Your task to perform on an android device: find which apps use the phone's location Image 0: 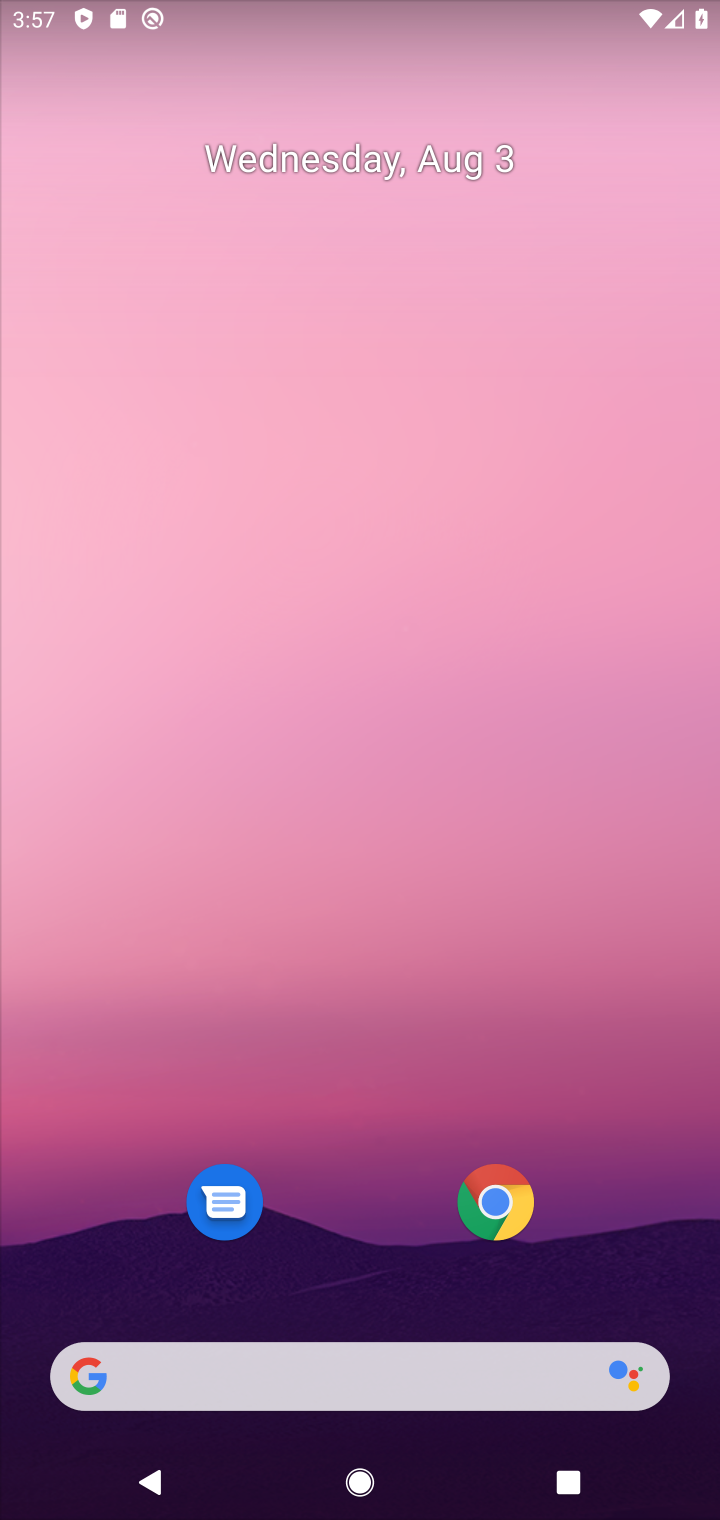
Step 0: drag from (358, 1164) to (492, 178)
Your task to perform on an android device: find which apps use the phone's location Image 1: 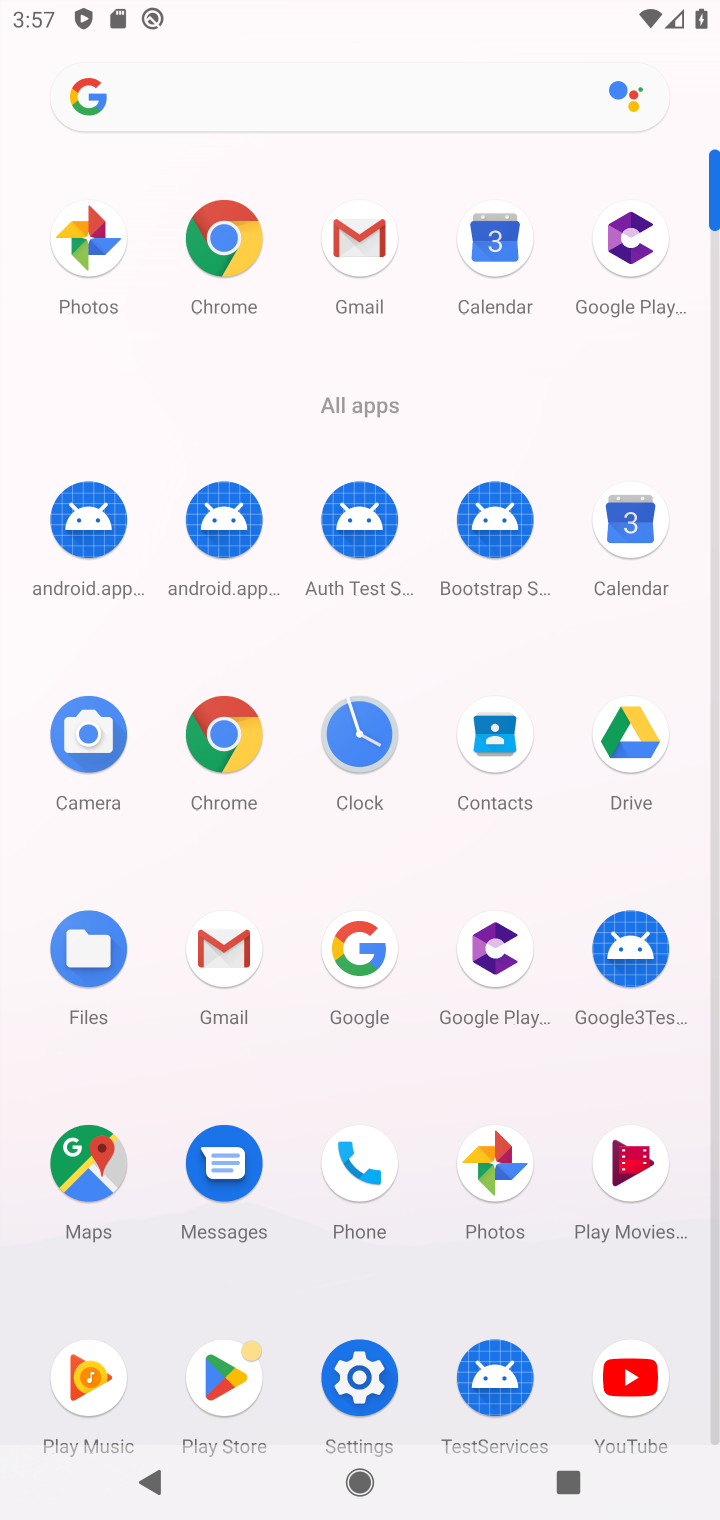
Step 1: click (347, 1368)
Your task to perform on an android device: find which apps use the phone's location Image 2: 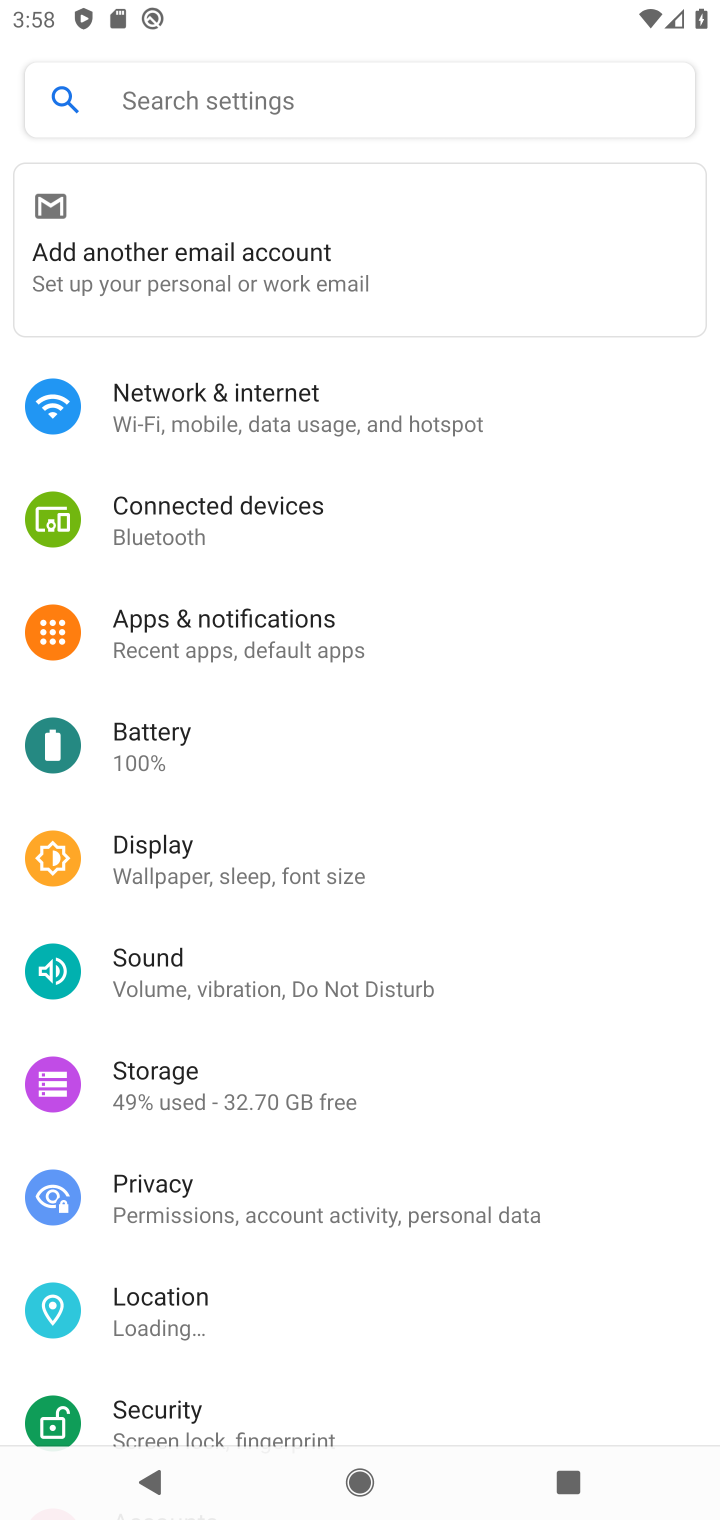
Step 2: click (179, 1302)
Your task to perform on an android device: find which apps use the phone's location Image 3: 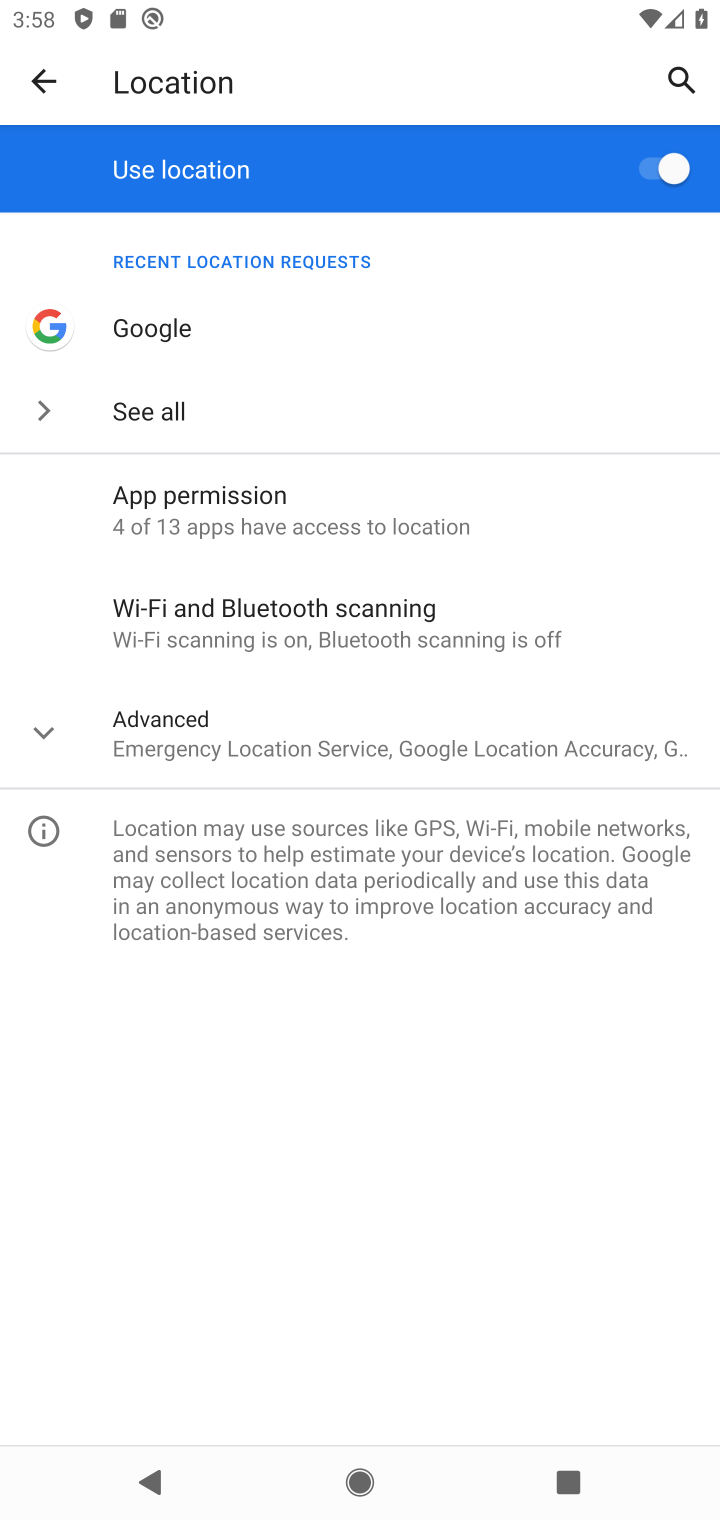
Step 3: click (225, 484)
Your task to perform on an android device: find which apps use the phone's location Image 4: 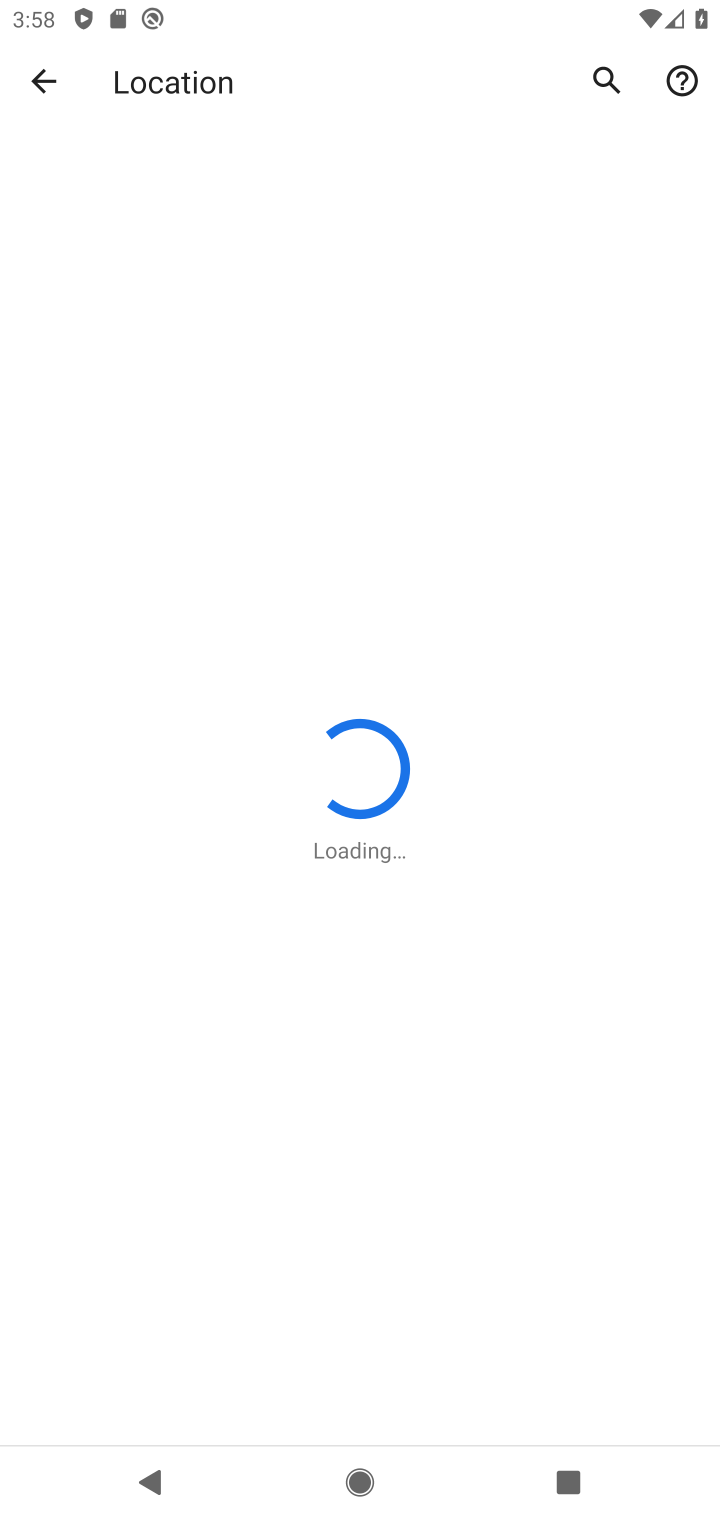
Step 4: task complete